Your task to perform on an android device: turn off improve location accuracy Image 0: 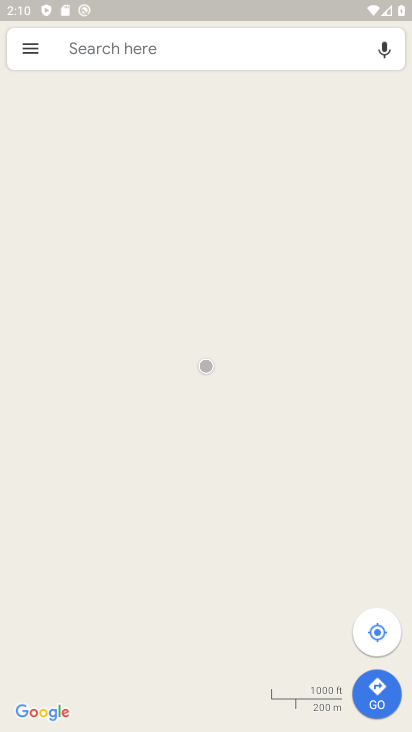
Step 0: press home button
Your task to perform on an android device: turn off improve location accuracy Image 1: 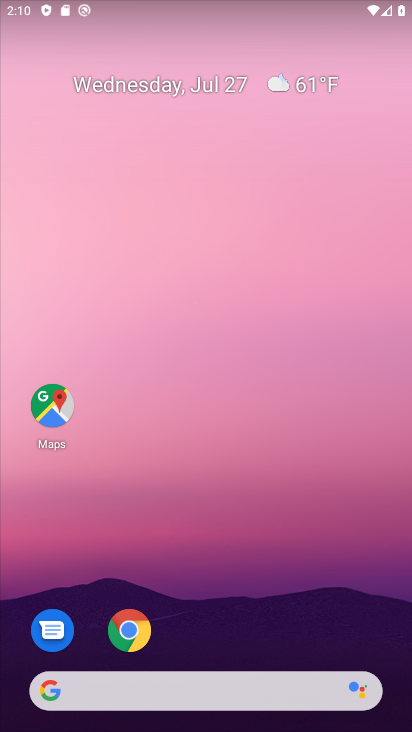
Step 1: drag from (264, 616) to (235, 119)
Your task to perform on an android device: turn off improve location accuracy Image 2: 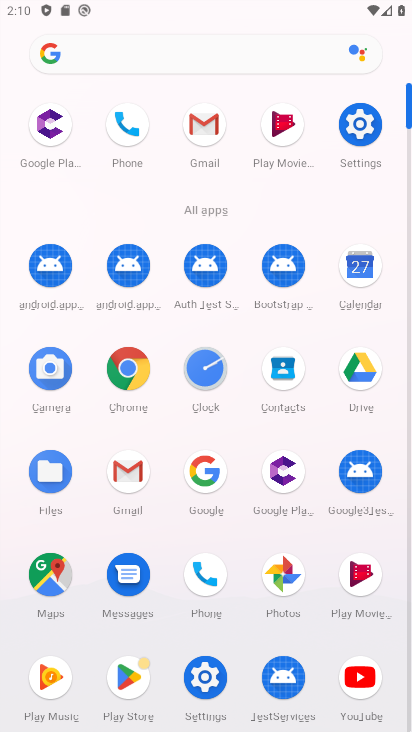
Step 2: click (355, 131)
Your task to perform on an android device: turn off improve location accuracy Image 3: 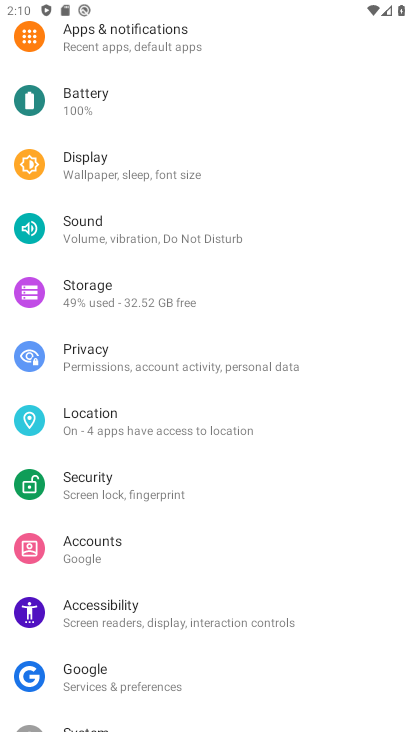
Step 3: click (129, 426)
Your task to perform on an android device: turn off improve location accuracy Image 4: 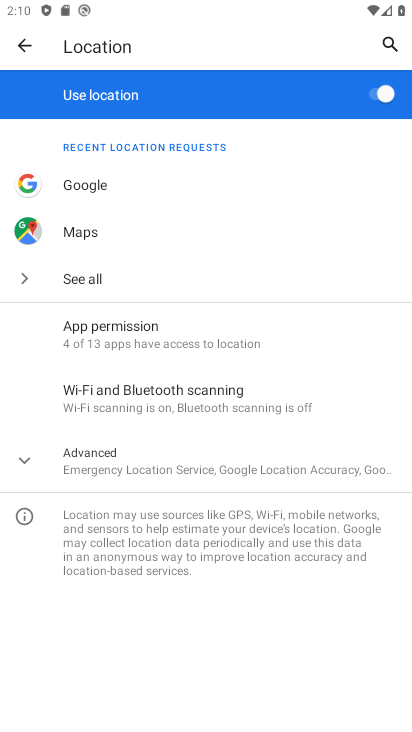
Step 4: click (119, 462)
Your task to perform on an android device: turn off improve location accuracy Image 5: 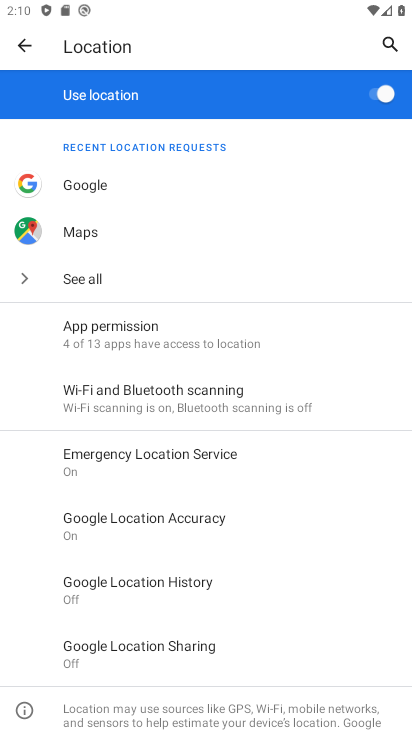
Step 5: click (143, 528)
Your task to perform on an android device: turn off improve location accuracy Image 6: 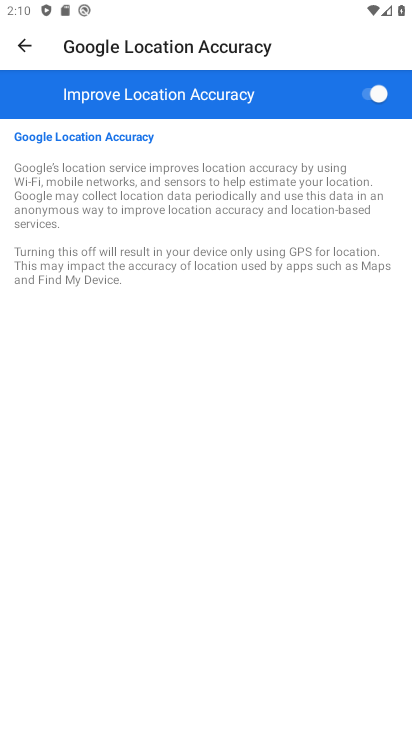
Step 6: click (364, 91)
Your task to perform on an android device: turn off improve location accuracy Image 7: 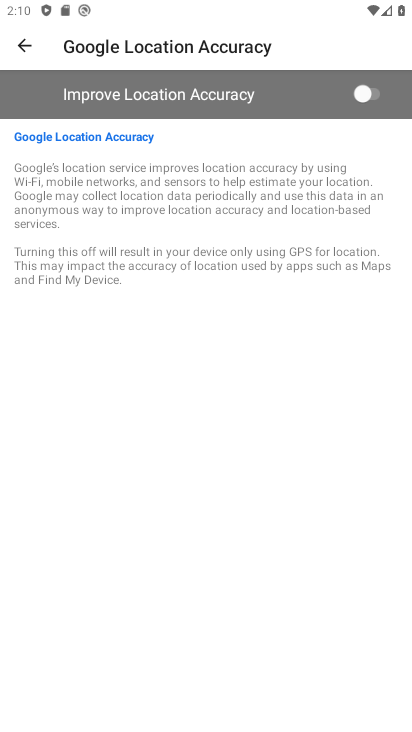
Step 7: task complete